Your task to perform on an android device: all mails in gmail Image 0: 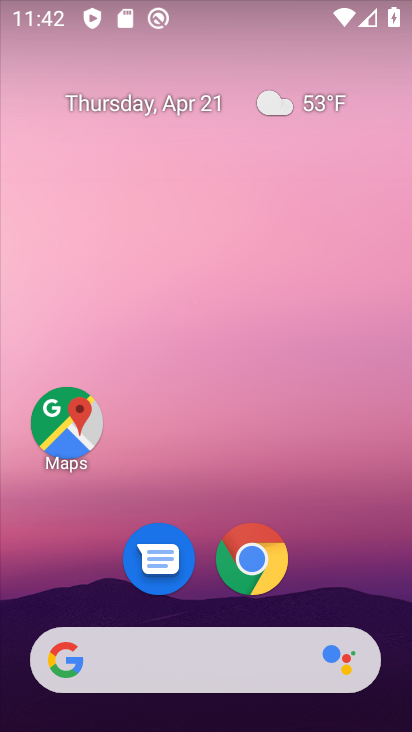
Step 0: drag from (390, 584) to (220, 4)
Your task to perform on an android device: all mails in gmail Image 1: 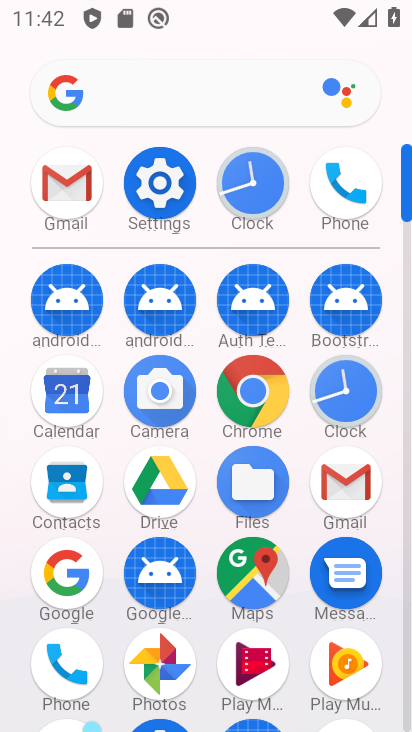
Step 1: click (60, 185)
Your task to perform on an android device: all mails in gmail Image 2: 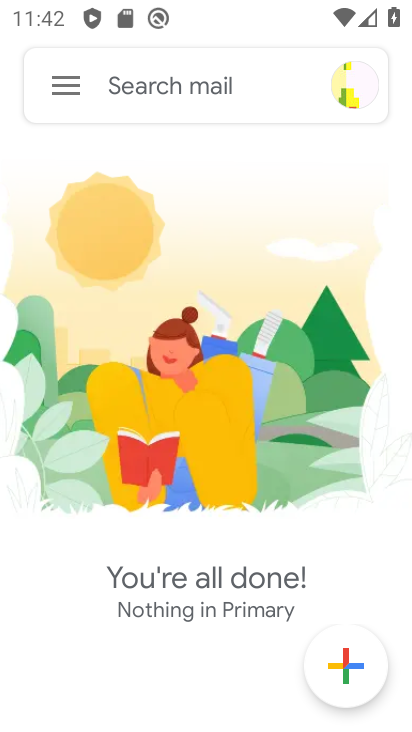
Step 2: click (67, 67)
Your task to perform on an android device: all mails in gmail Image 3: 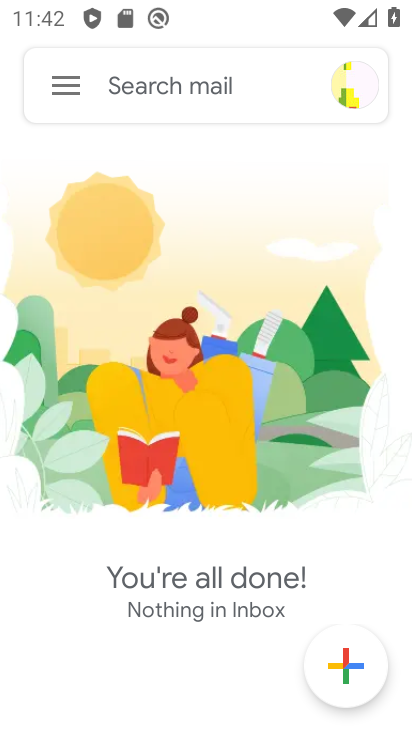
Step 3: click (50, 80)
Your task to perform on an android device: all mails in gmail Image 4: 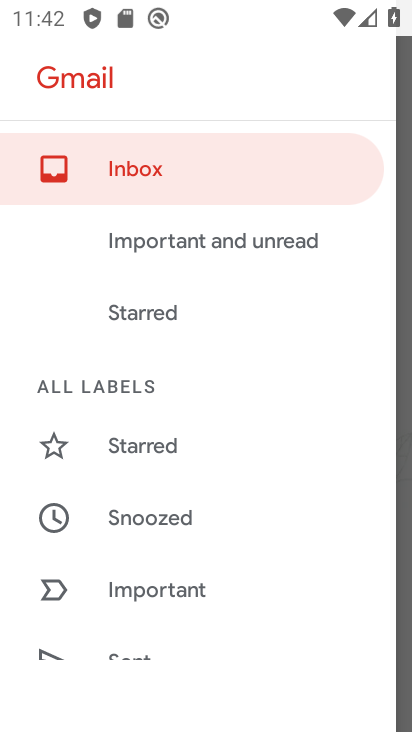
Step 4: drag from (180, 341) to (149, 104)
Your task to perform on an android device: all mails in gmail Image 5: 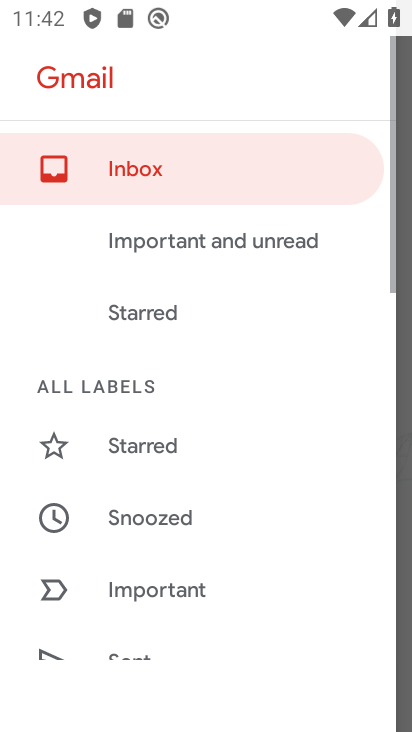
Step 5: drag from (239, 512) to (257, 110)
Your task to perform on an android device: all mails in gmail Image 6: 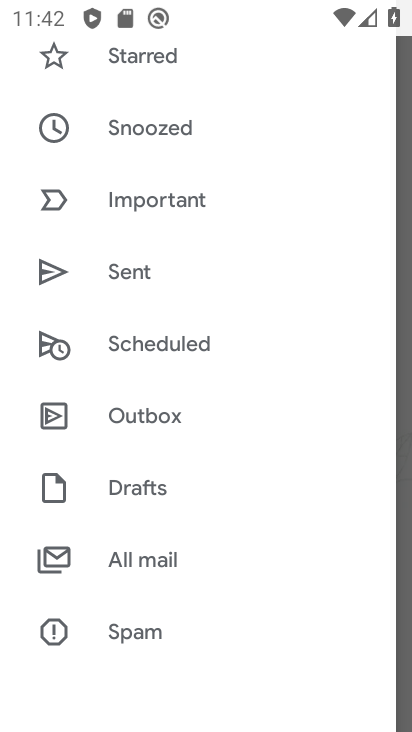
Step 6: click (162, 568)
Your task to perform on an android device: all mails in gmail Image 7: 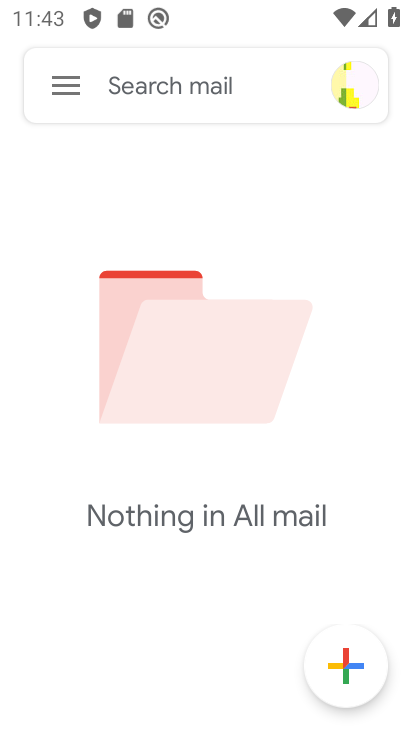
Step 7: task complete